Your task to perform on an android device: Go to settings Image 0: 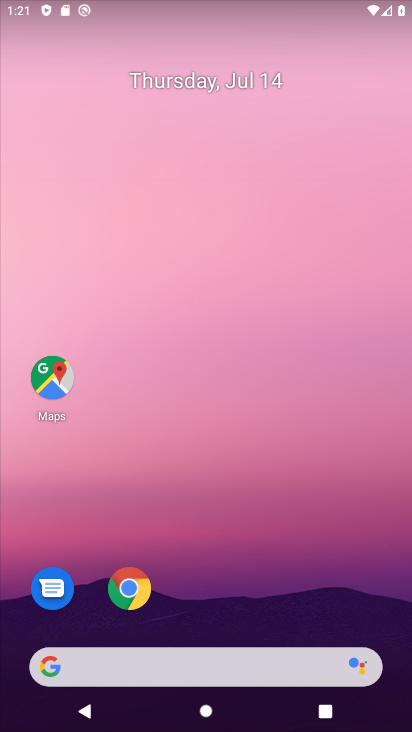
Step 0: drag from (252, 549) to (372, 8)
Your task to perform on an android device: Go to settings Image 1: 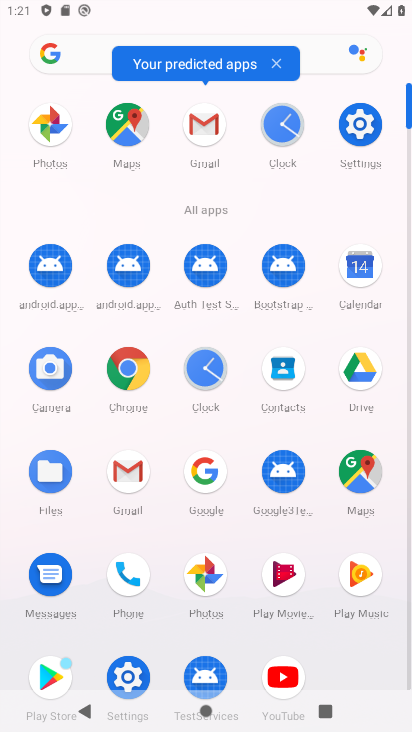
Step 1: click (366, 135)
Your task to perform on an android device: Go to settings Image 2: 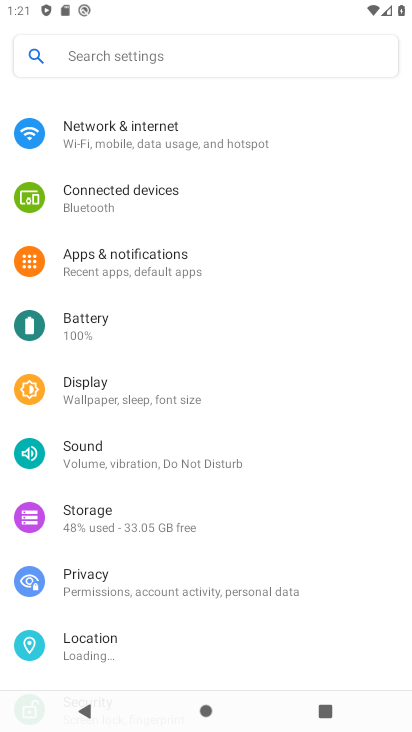
Step 2: task complete